Your task to perform on an android device: Open battery settings Image 0: 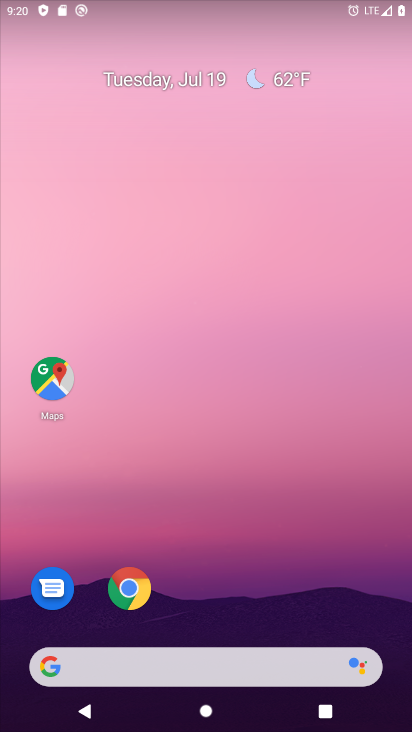
Step 0: drag from (251, 539) to (325, 14)
Your task to perform on an android device: Open battery settings Image 1: 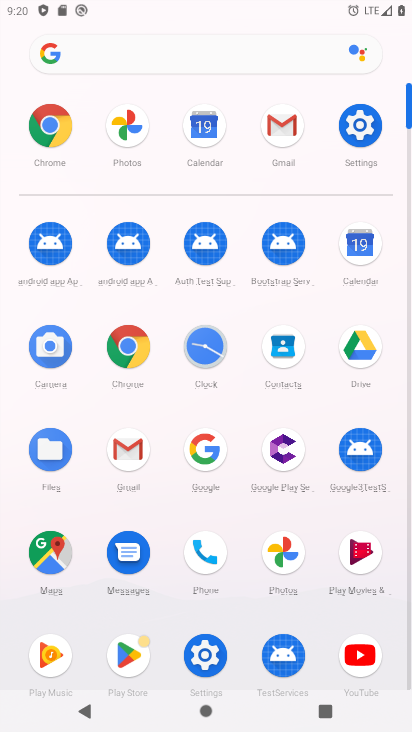
Step 1: click (348, 129)
Your task to perform on an android device: Open battery settings Image 2: 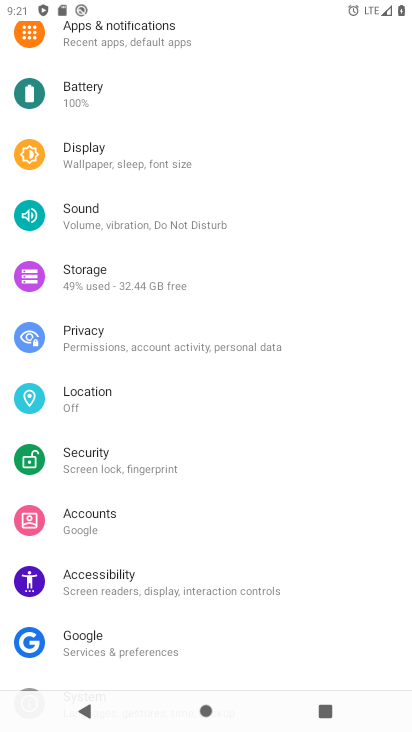
Step 2: click (89, 103)
Your task to perform on an android device: Open battery settings Image 3: 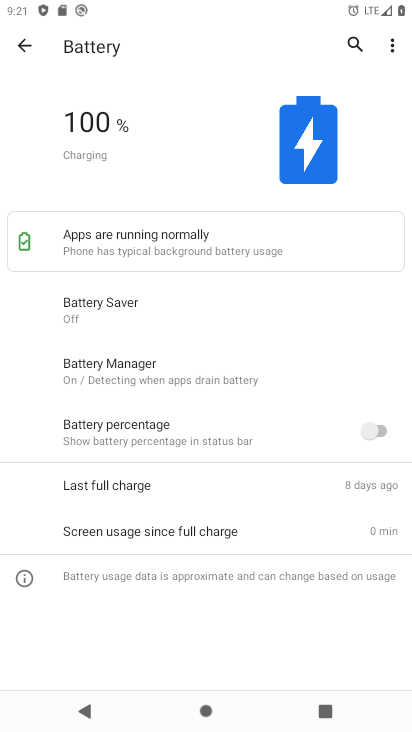
Step 3: task complete